Your task to perform on an android device: Go to Wikipedia Image 0: 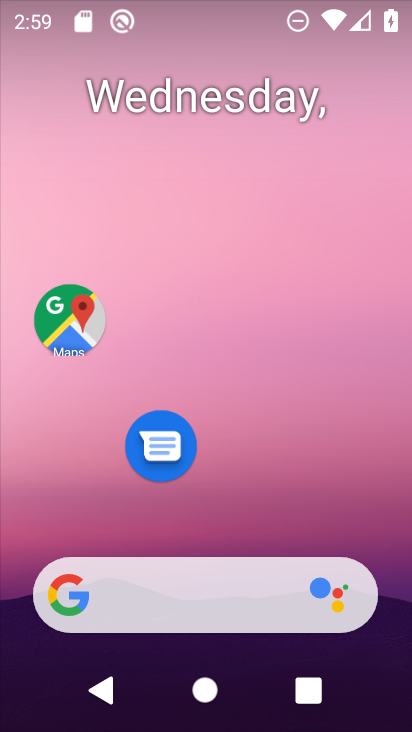
Step 0: drag from (311, 544) to (360, 237)
Your task to perform on an android device: Go to Wikipedia Image 1: 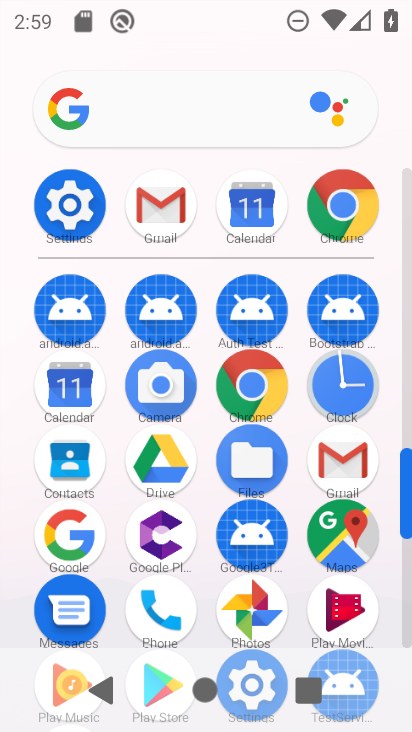
Step 1: drag from (77, 288) to (77, 230)
Your task to perform on an android device: Go to Wikipedia Image 2: 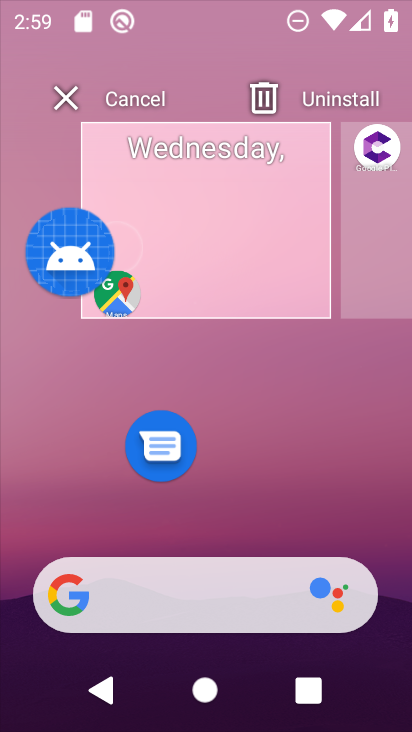
Step 2: click (77, 230)
Your task to perform on an android device: Go to Wikipedia Image 3: 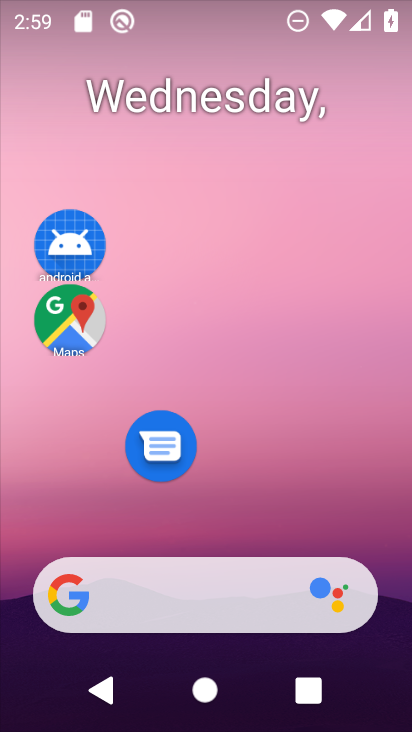
Step 3: drag from (315, 473) to (307, 138)
Your task to perform on an android device: Go to Wikipedia Image 4: 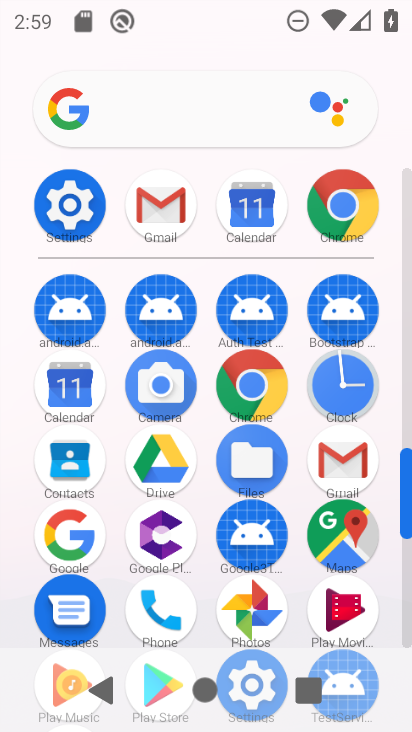
Step 4: click (344, 211)
Your task to perform on an android device: Go to Wikipedia Image 5: 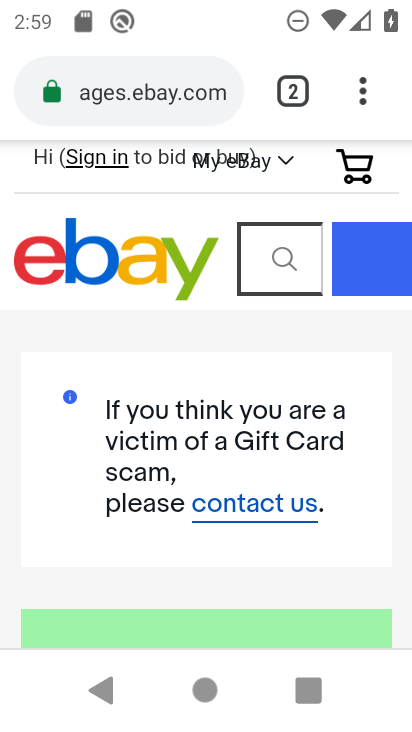
Step 5: click (206, 99)
Your task to perform on an android device: Go to Wikipedia Image 6: 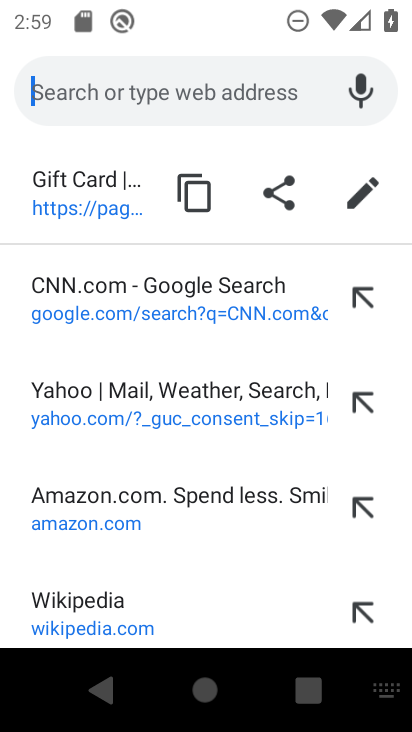
Step 6: click (268, 624)
Your task to perform on an android device: Go to Wikipedia Image 7: 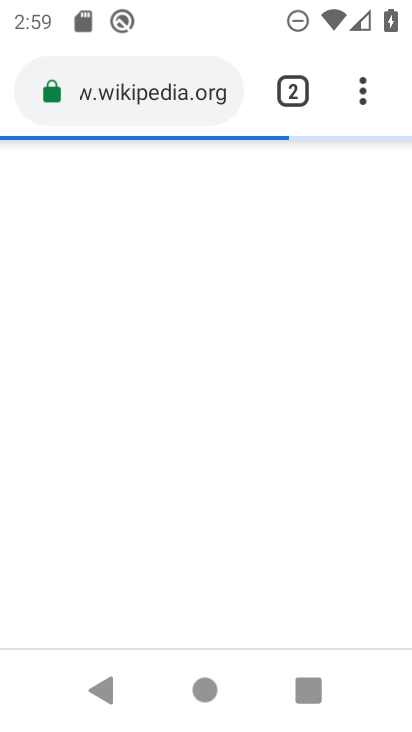
Step 7: task complete